Your task to perform on an android device: Find coffee shops on Maps Image 0: 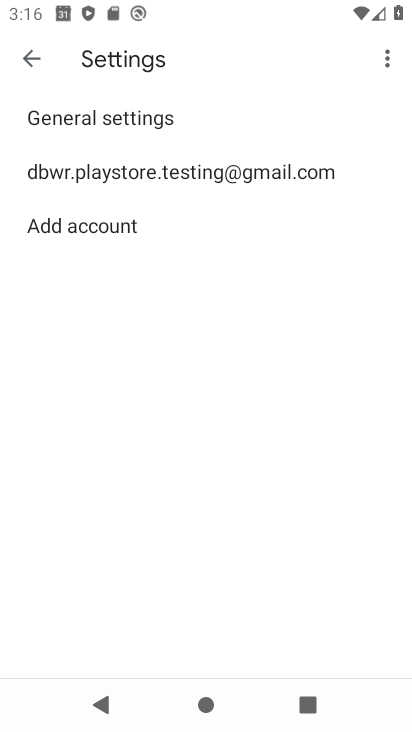
Step 0: press home button
Your task to perform on an android device: Find coffee shops on Maps Image 1: 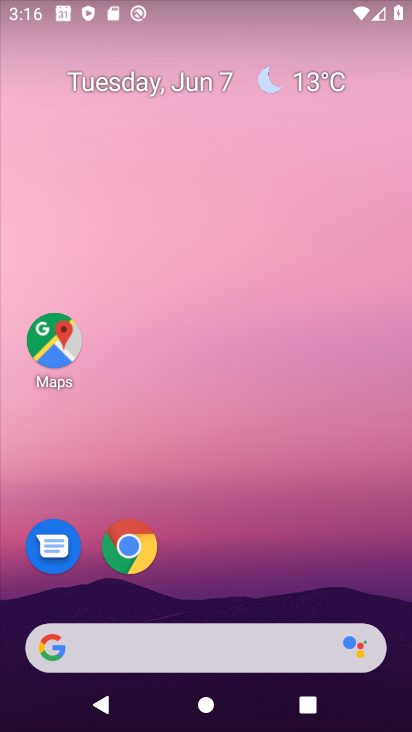
Step 1: click (63, 340)
Your task to perform on an android device: Find coffee shops on Maps Image 2: 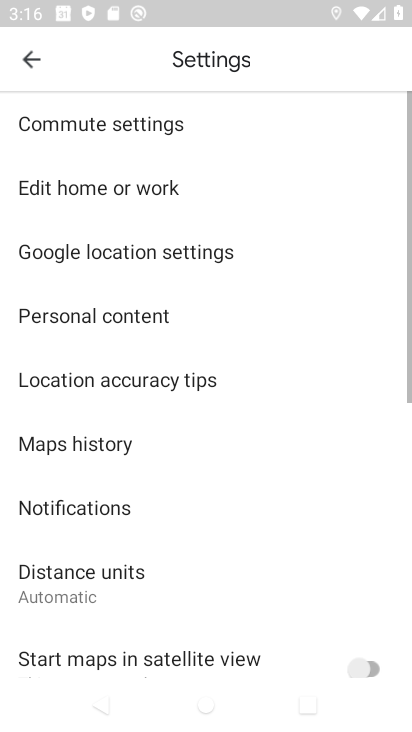
Step 2: click (33, 66)
Your task to perform on an android device: Find coffee shops on Maps Image 3: 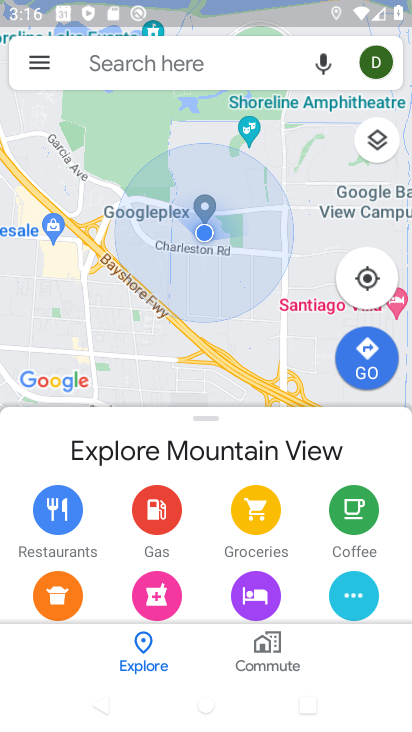
Step 3: click (165, 64)
Your task to perform on an android device: Find coffee shops on Maps Image 4: 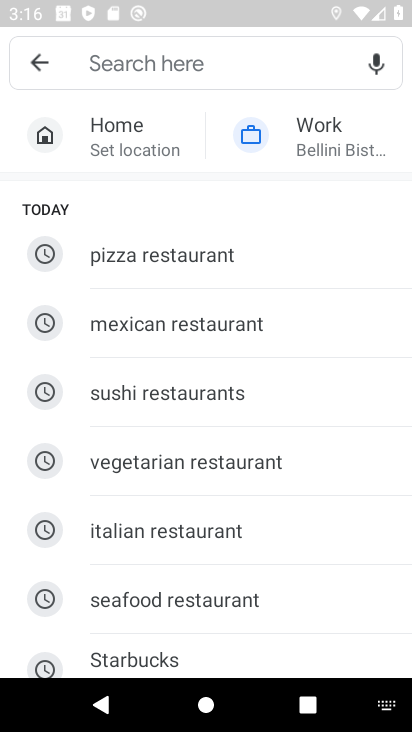
Step 4: drag from (120, 599) to (186, 187)
Your task to perform on an android device: Find coffee shops on Maps Image 5: 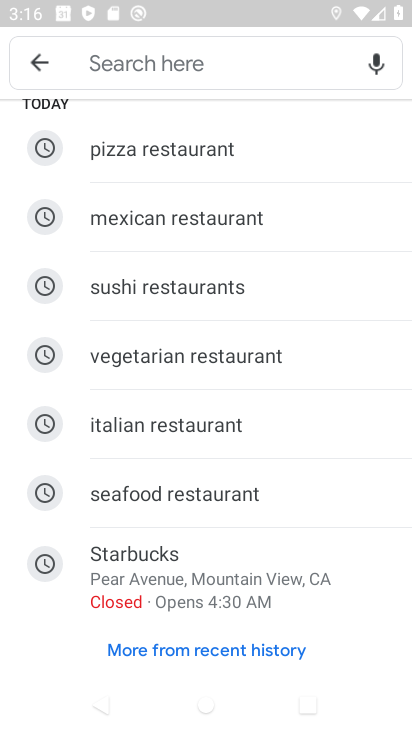
Step 5: drag from (358, 244) to (208, 625)
Your task to perform on an android device: Find coffee shops on Maps Image 6: 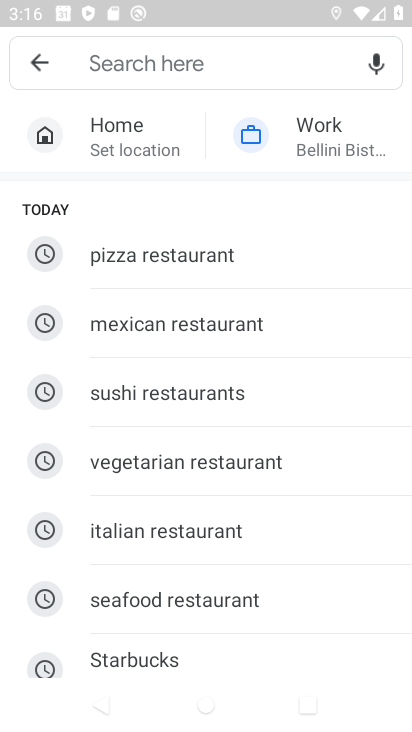
Step 6: click (188, 68)
Your task to perform on an android device: Find coffee shops on Maps Image 7: 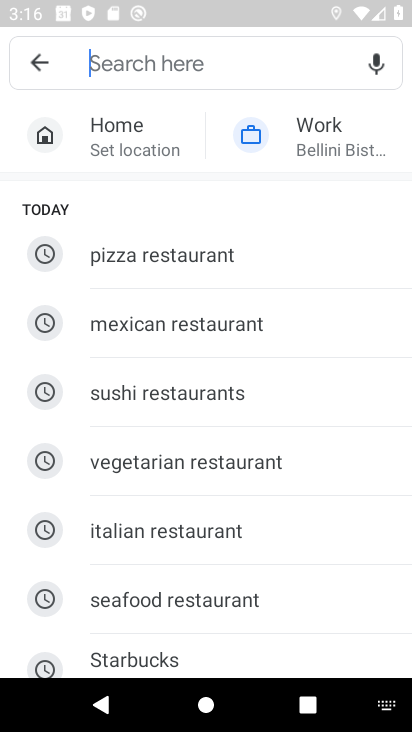
Step 7: type "coffee"
Your task to perform on an android device: Find coffee shops on Maps Image 8: 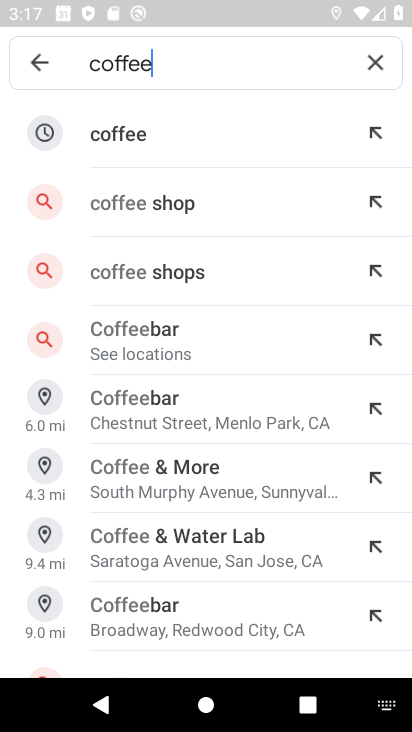
Step 8: task complete